Your task to perform on an android device: Go to CNN.com Image 0: 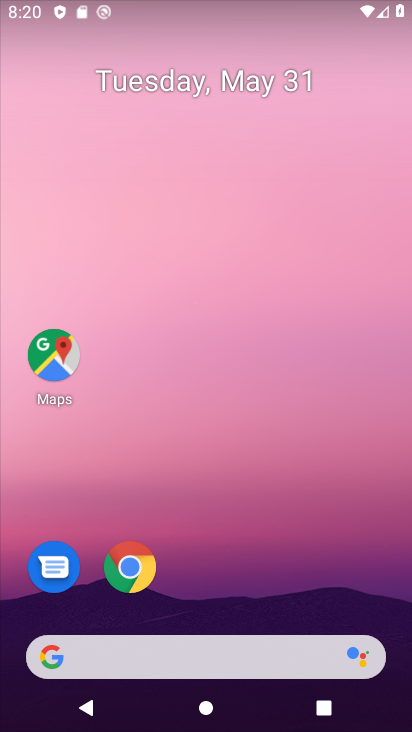
Step 0: drag from (196, 637) to (322, 57)
Your task to perform on an android device: Go to CNN.com Image 1: 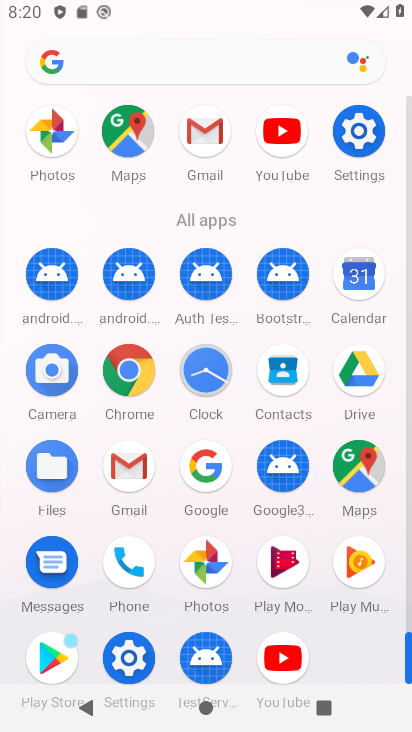
Step 1: click (206, 463)
Your task to perform on an android device: Go to CNN.com Image 2: 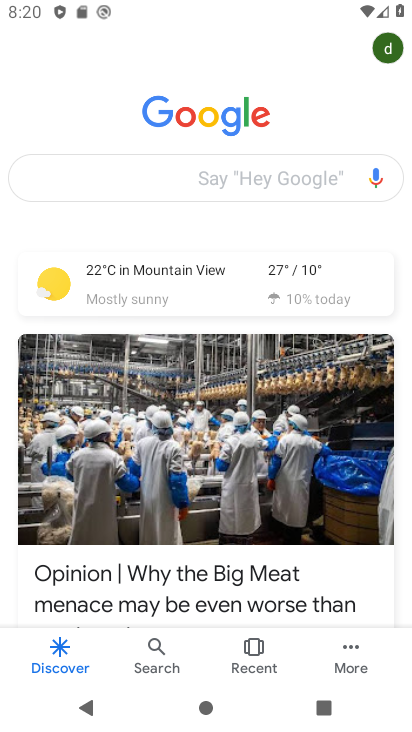
Step 2: click (108, 190)
Your task to perform on an android device: Go to CNN.com Image 3: 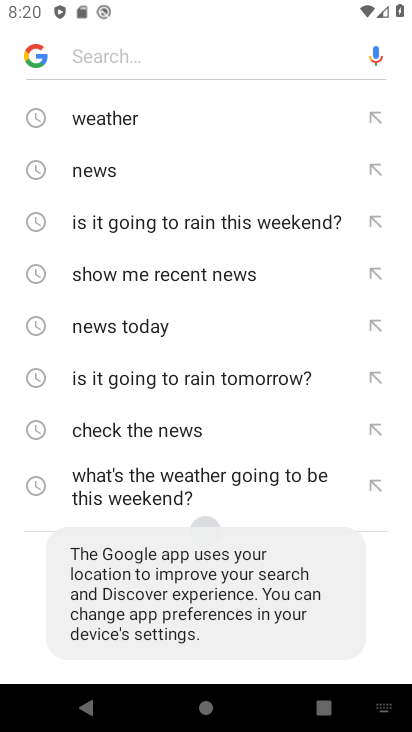
Step 3: drag from (149, 509) to (214, 135)
Your task to perform on an android device: Go to CNN.com Image 4: 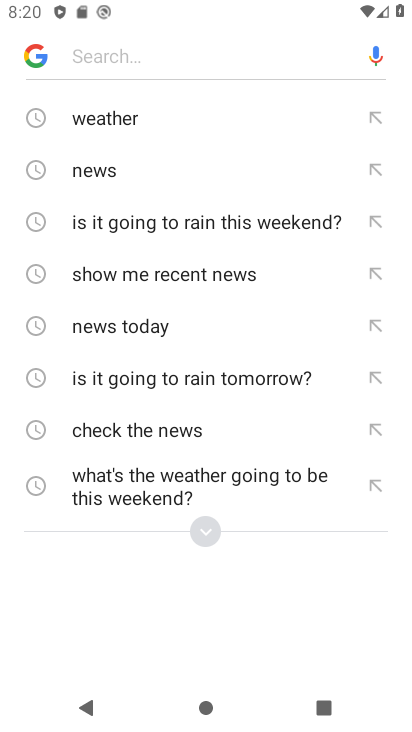
Step 4: drag from (177, 384) to (243, 45)
Your task to perform on an android device: Go to CNN.com Image 5: 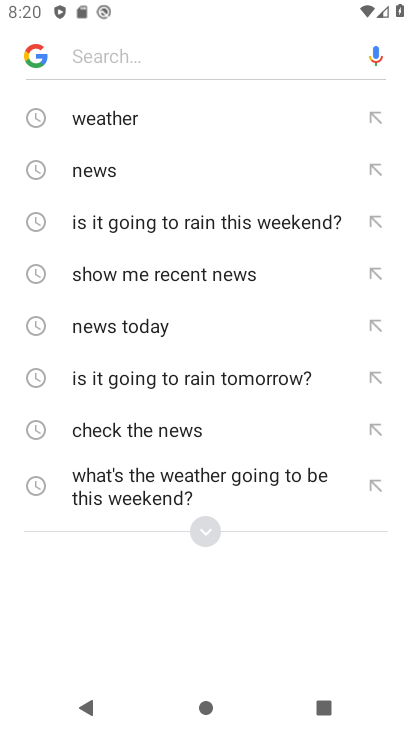
Step 5: click (200, 537)
Your task to perform on an android device: Go to CNN.com Image 6: 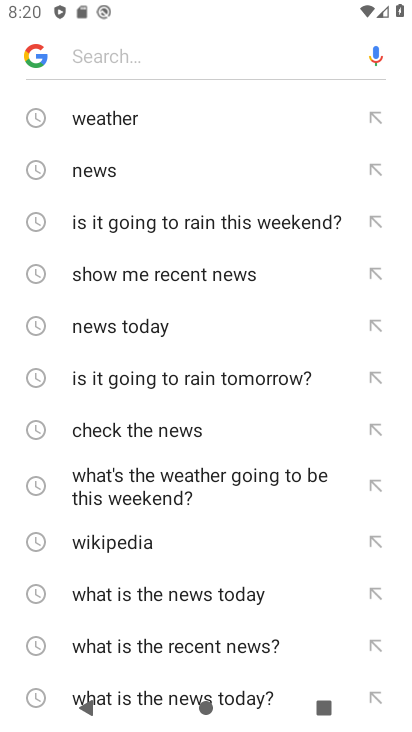
Step 6: drag from (154, 658) to (265, 227)
Your task to perform on an android device: Go to CNN.com Image 7: 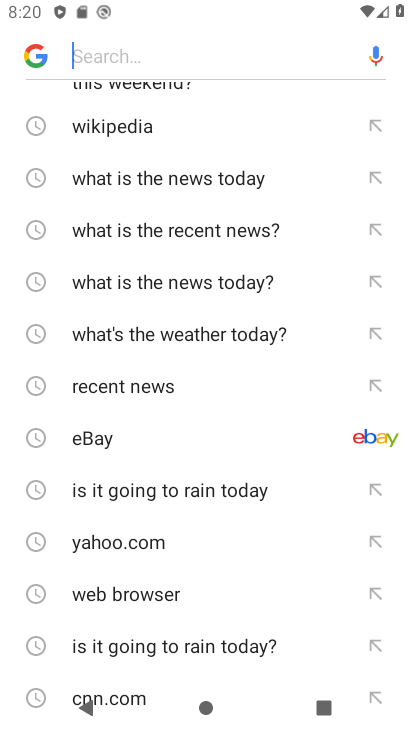
Step 7: drag from (216, 589) to (289, 177)
Your task to perform on an android device: Go to CNN.com Image 8: 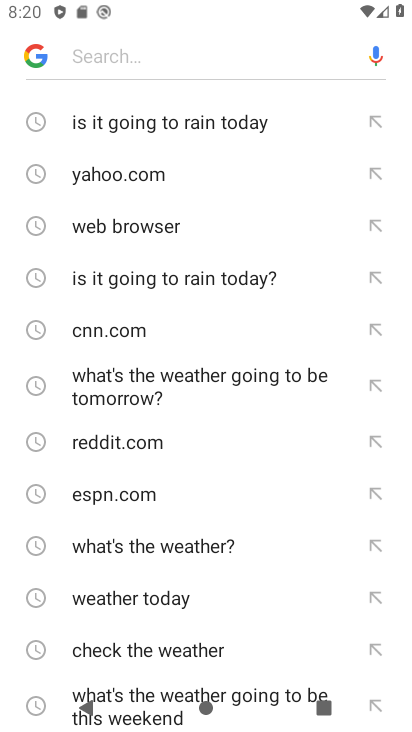
Step 8: drag from (102, 640) to (160, 228)
Your task to perform on an android device: Go to CNN.com Image 9: 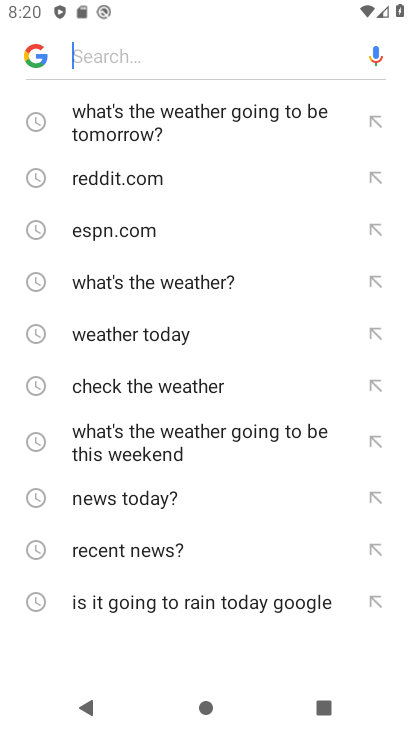
Step 9: drag from (218, 122) to (214, 465)
Your task to perform on an android device: Go to CNN.com Image 10: 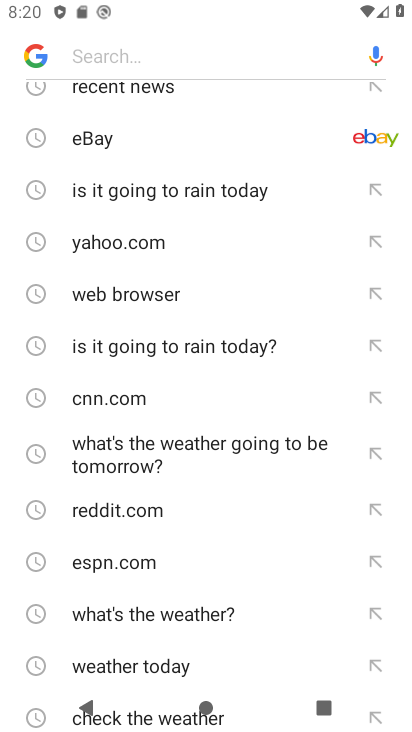
Step 10: click (126, 402)
Your task to perform on an android device: Go to CNN.com Image 11: 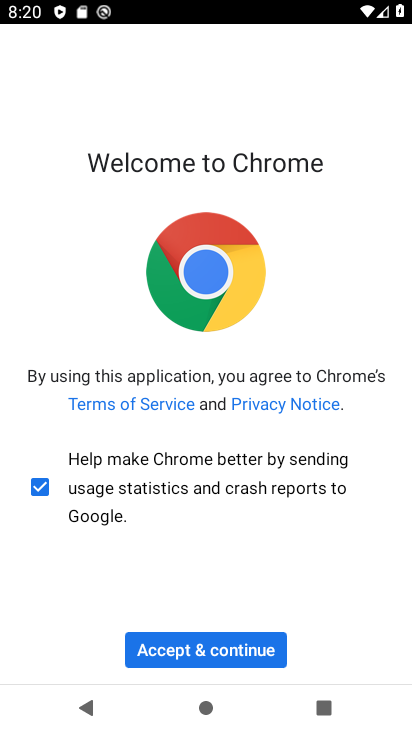
Step 11: click (221, 647)
Your task to perform on an android device: Go to CNN.com Image 12: 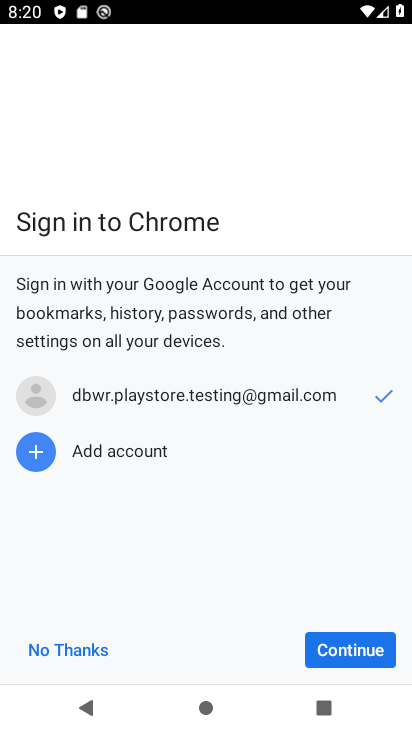
Step 12: click (344, 638)
Your task to perform on an android device: Go to CNN.com Image 13: 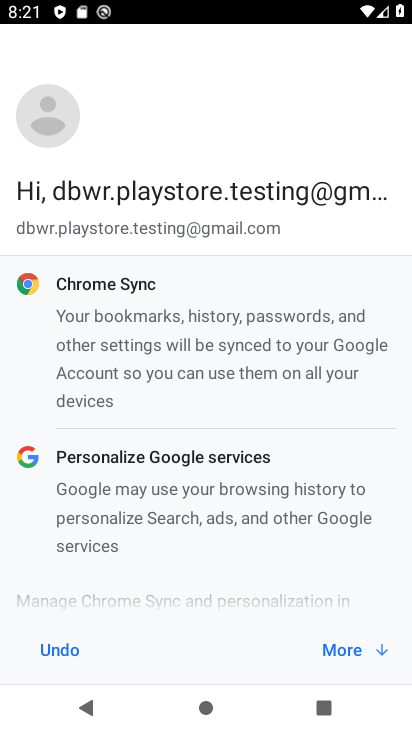
Step 13: task complete